Your task to perform on an android device: Search for a new highlighter Image 0: 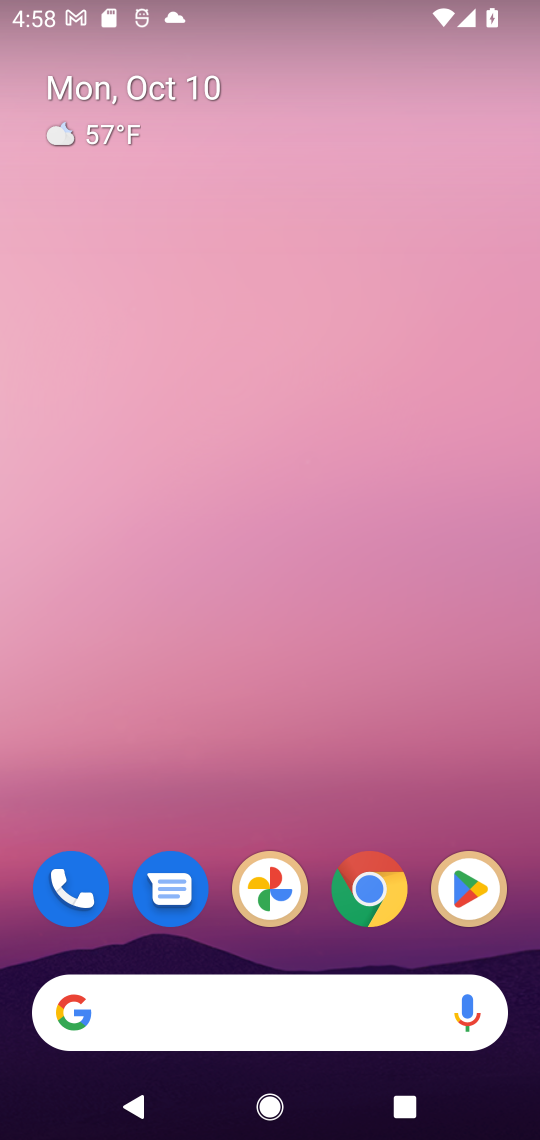
Step 0: click (367, 897)
Your task to perform on an android device: Search for a new highlighter Image 1: 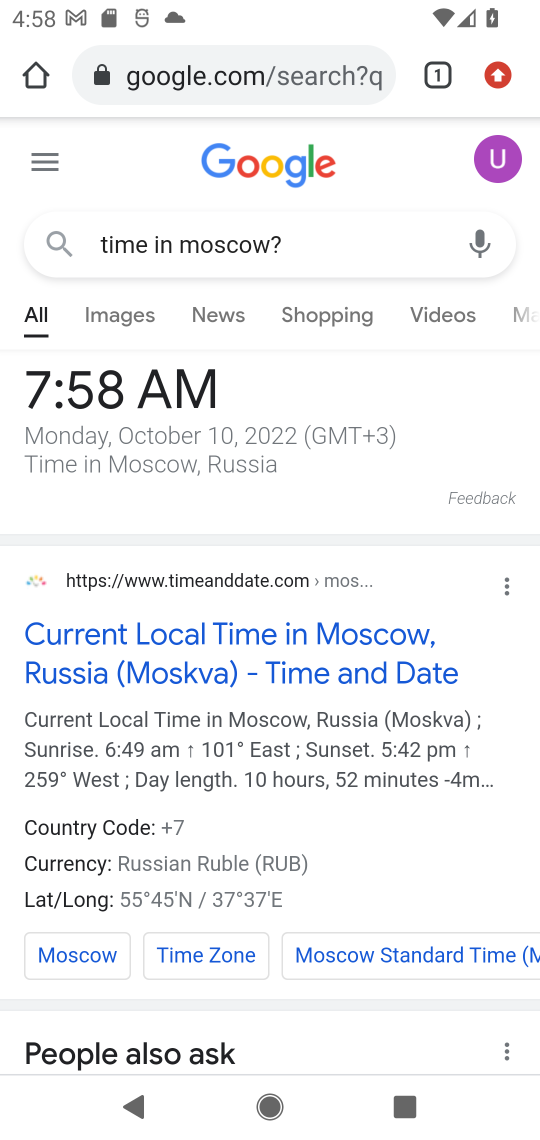
Step 1: click (251, 54)
Your task to perform on an android device: Search for a new highlighter Image 2: 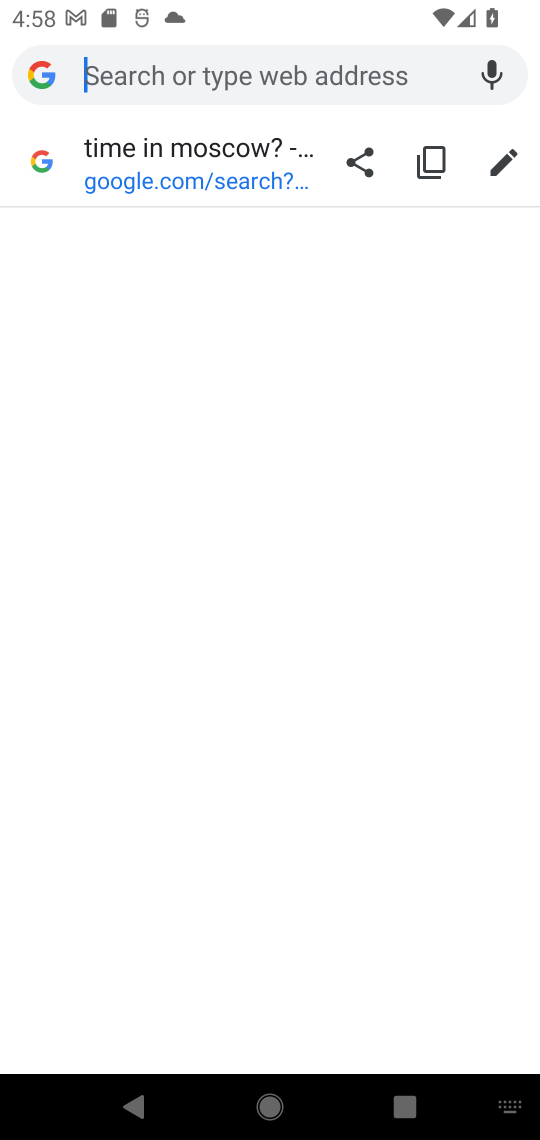
Step 2: type "new highlighter"
Your task to perform on an android device: Search for a new highlighter Image 3: 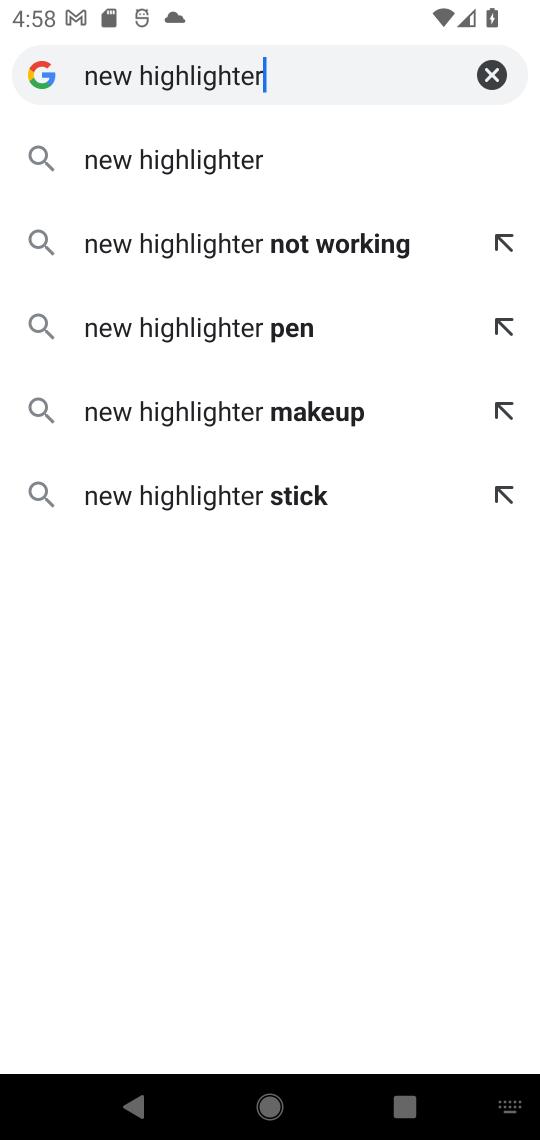
Step 3: click (176, 166)
Your task to perform on an android device: Search for a new highlighter Image 4: 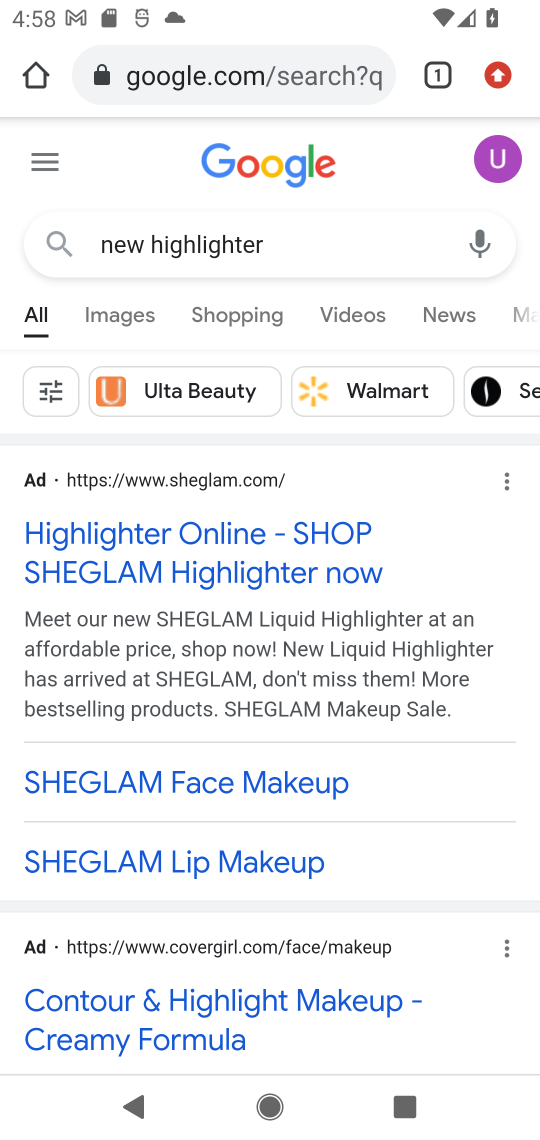
Step 4: click (118, 523)
Your task to perform on an android device: Search for a new highlighter Image 5: 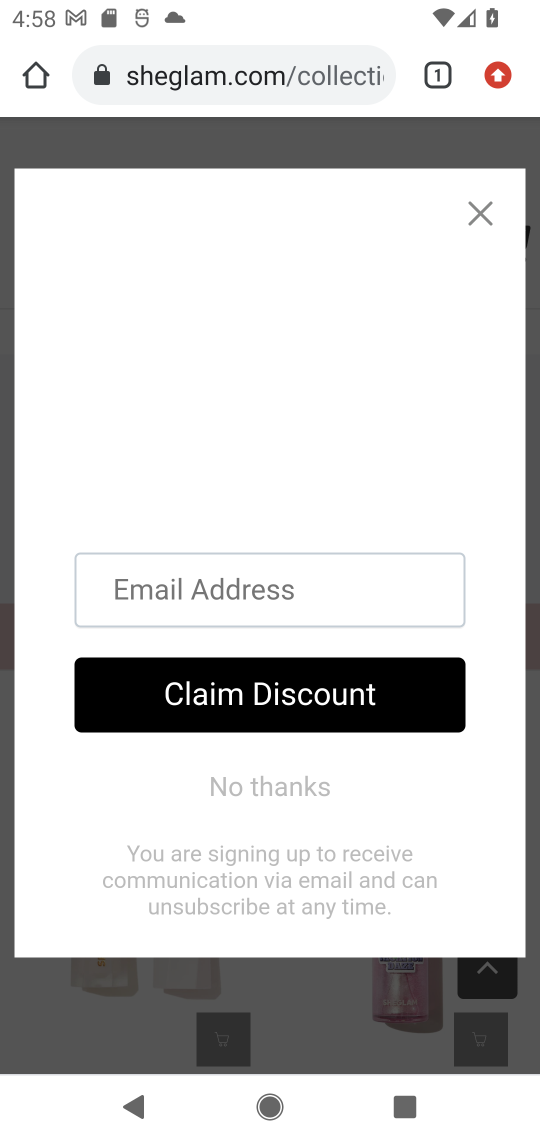
Step 5: click (475, 208)
Your task to perform on an android device: Search for a new highlighter Image 6: 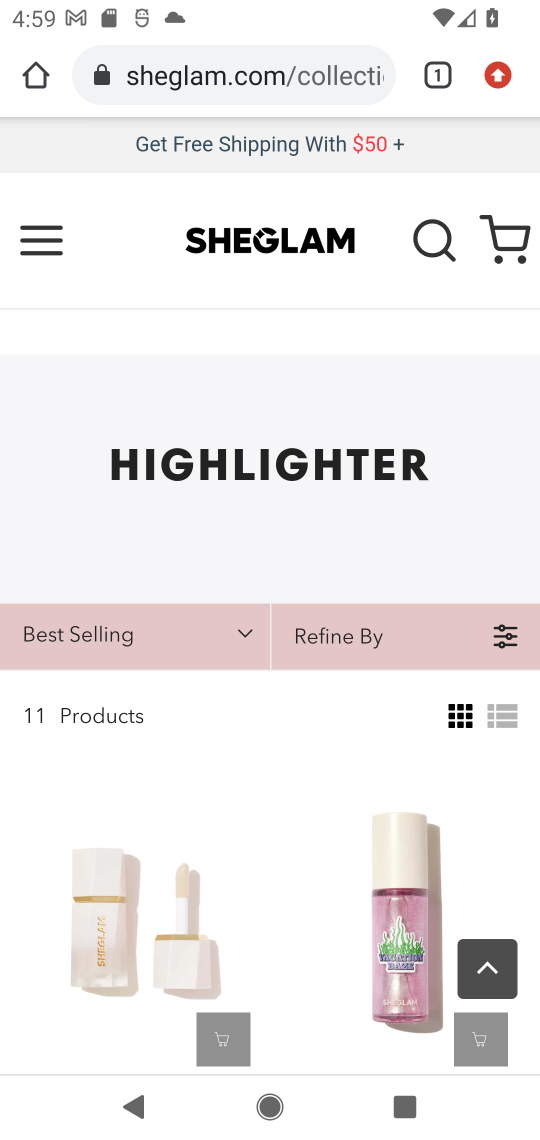
Step 6: task complete